Your task to perform on an android device: Is it going to rain today? Image 0: 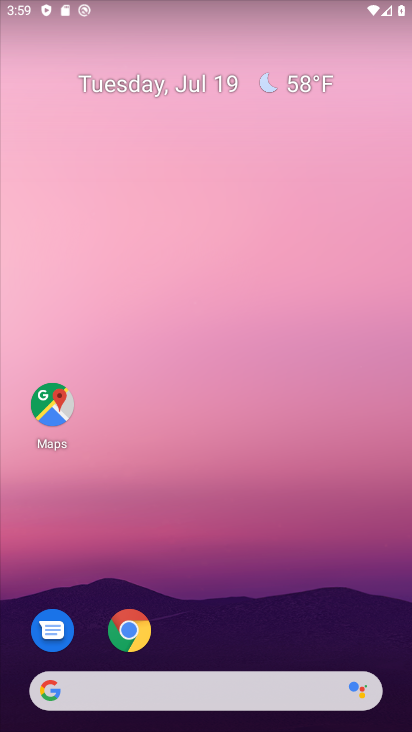
Step 0: click (127, 690)
Your task to perform on an android device: Is it going to rain today? Image 1: 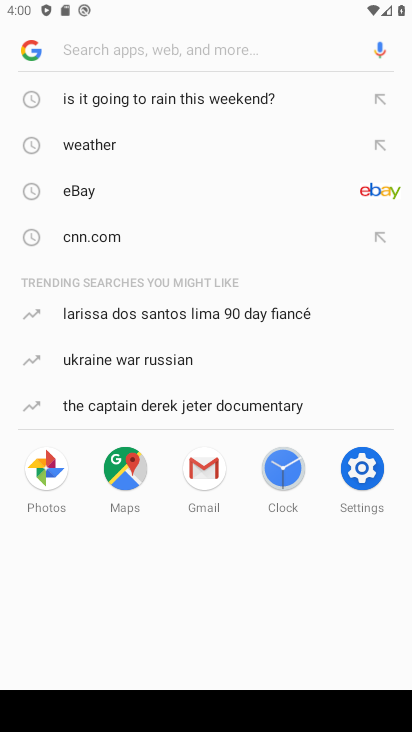
Step 1: type "Is it going to rain today?"
Your task to perform on an android device: Is it going to rain today? Image 2: 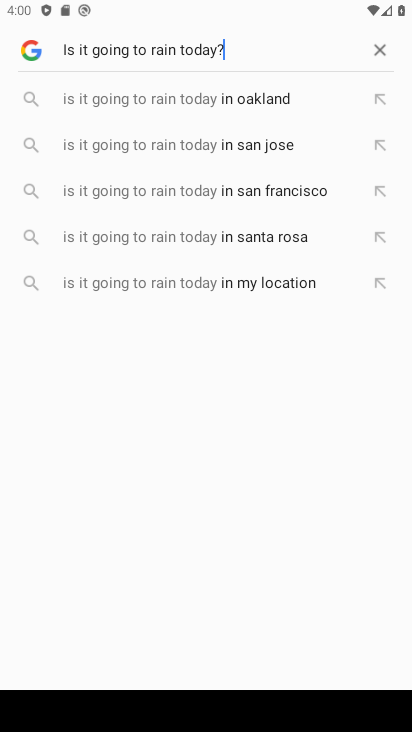
Step 2: type ""
Your task to perform on an android device: Is it going to rain today? Image 3: 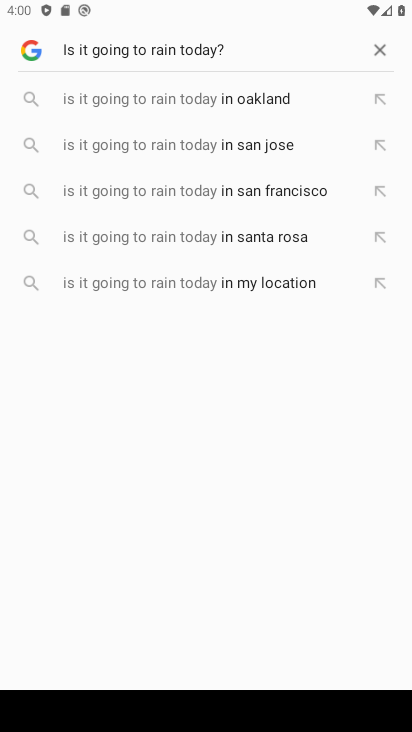
Step 3: task complete